Your task to perform on an android device: install app "Messenger Lite" Image 0: 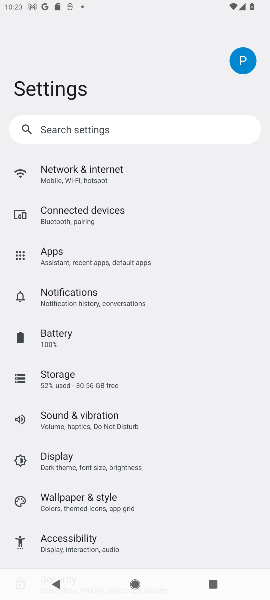
Step 0: press home button
Your task to perform on an android device: install app "Messenger Lite" Image 1: 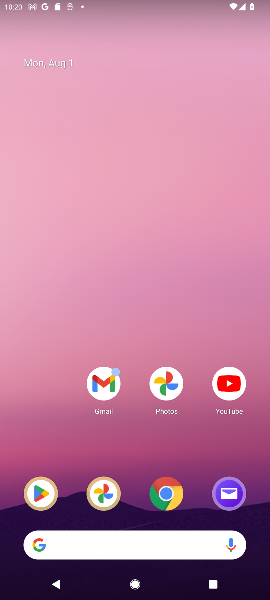
Step 1: click (32, 496)
Your task to perform on an android device: install app "Messenger Lite" Image 2: 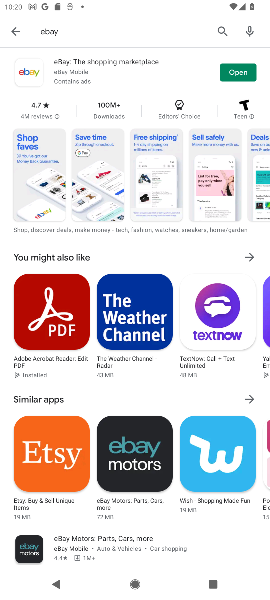
Step 2: click (222, 24)
Your task to perform on an android device: install app "Messenger Lite" Image 3: 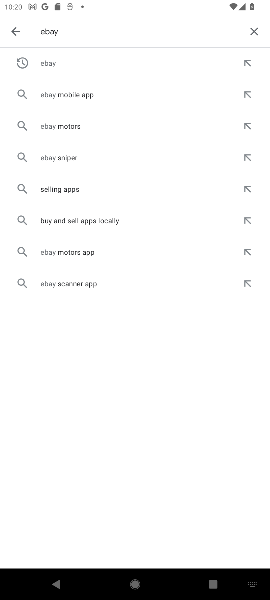
Step 3: click (247, 28)
Your task to perform on an android device: install app "Messenger Lite" Image 4: 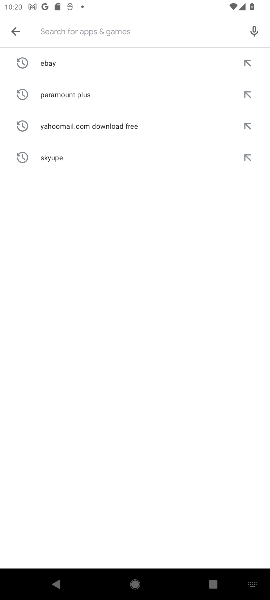
Step 4: type "messanger"
Your task to perform on an android device: install app "Messenger Lite" Image 5: 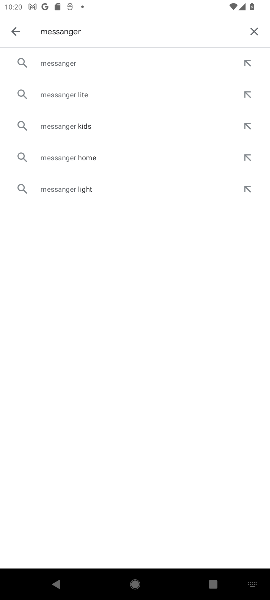
Step 5: click (89, 67)
Your task to perform on an android device: install app "Messenger Lite" Image 6: 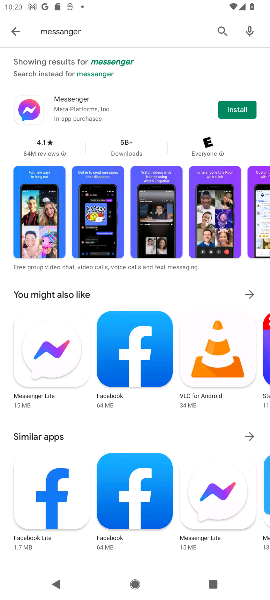
Step 6: click (233, 113)
Your task to perform on an android device: install app "Messenger Lite" Image 7: 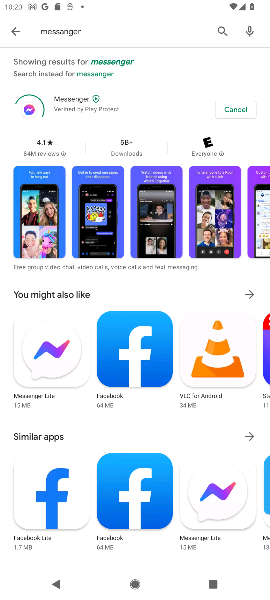
Step 7: task complete